Your task to perform on an android device: turn smart compose on in the gmail app Image 0: 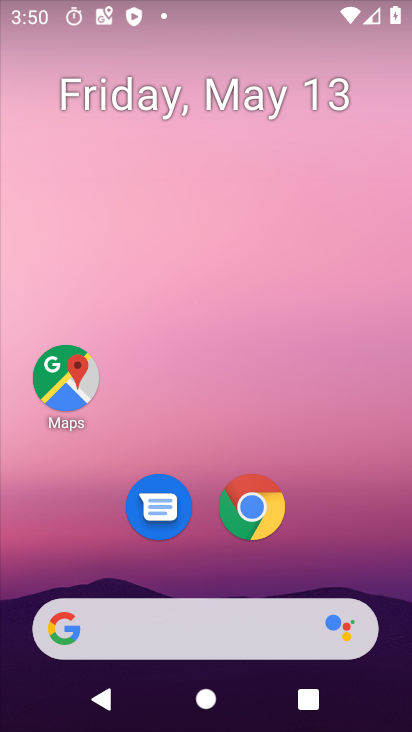
Step 0: drag from (342, 557) to (318, 61)
Your task to perform on an android device: turn smart compose on in the gmail app Image 1: 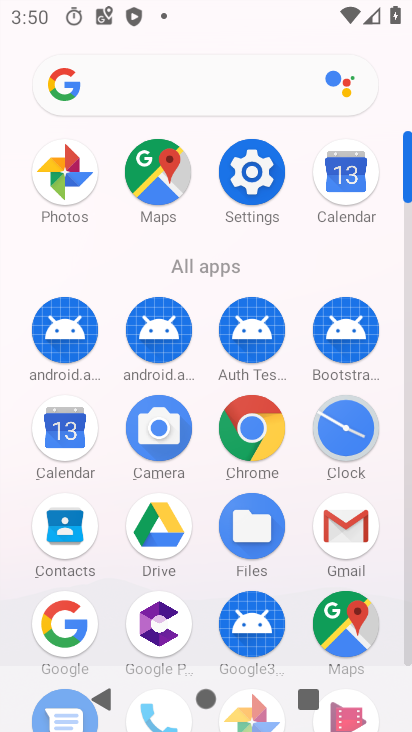
Step 1: click (371, 534)
Your task to perform on an android device: turn smart compose on in the gmail app Image 2: 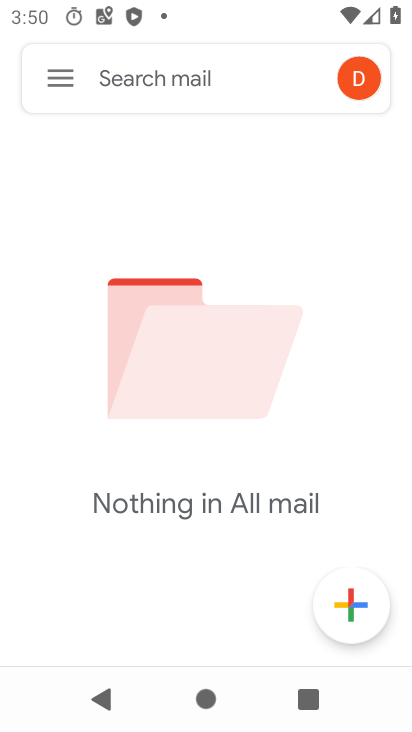
Step 2: click (62, 64)
Your task to perform on an android device: turn smart compose on in the gmail app Image 3: 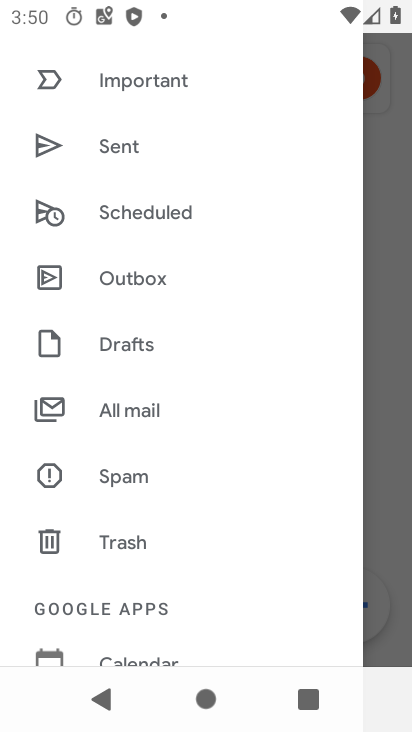
Step 3: drag from (223, 492) to (192, 145)
Your task to perform on an android device: turn smart compose on in the gmail app Image 4: 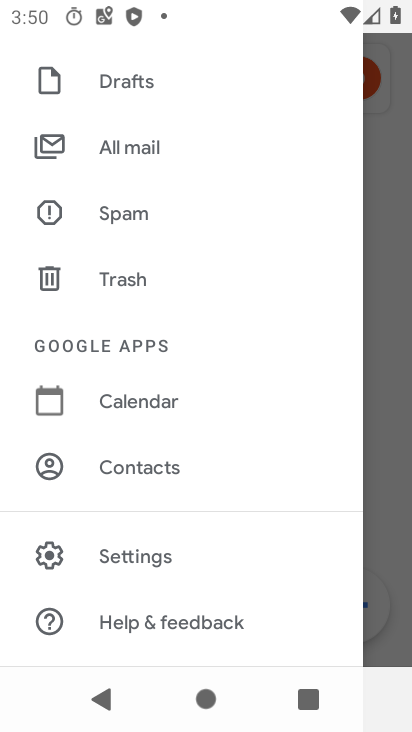
Step 4: click (169, 559)
Your task to perform on an android device: turn smart compose on in the gmail app Image 5: 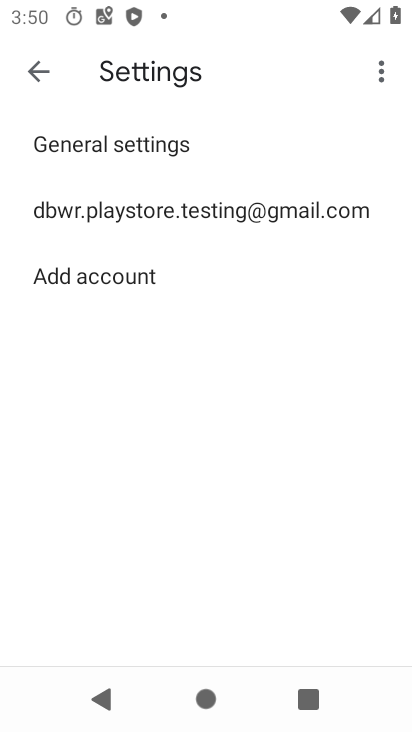
Step 5: click (162, 211)
Your task to perform on an android device: turn smart compose on in the gmail app Image 6: 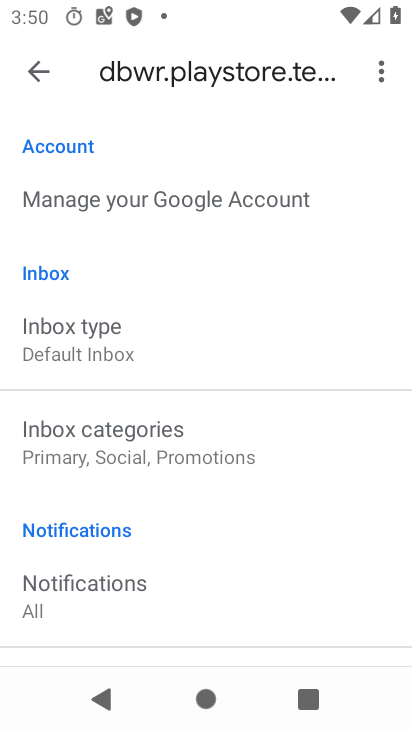
Step 6: task complete